Your task to perform on an android device: turn vacation reply on in the gmail app Image 0: 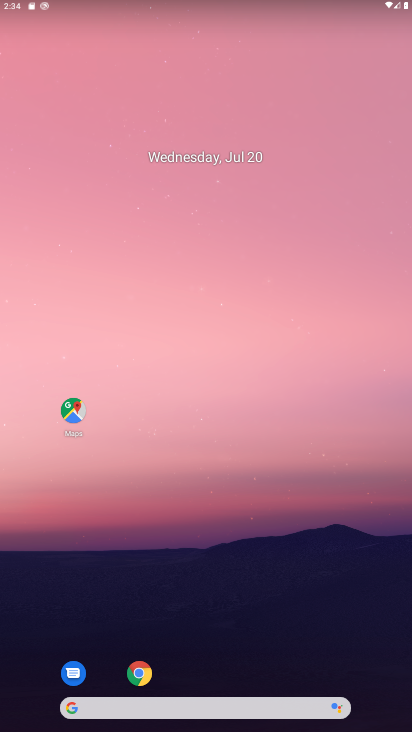
Step 0: drag from (201, 547) to (218, 262)
Your task to perform on an android device: turn vacation reply on in the gmail app Image 1: 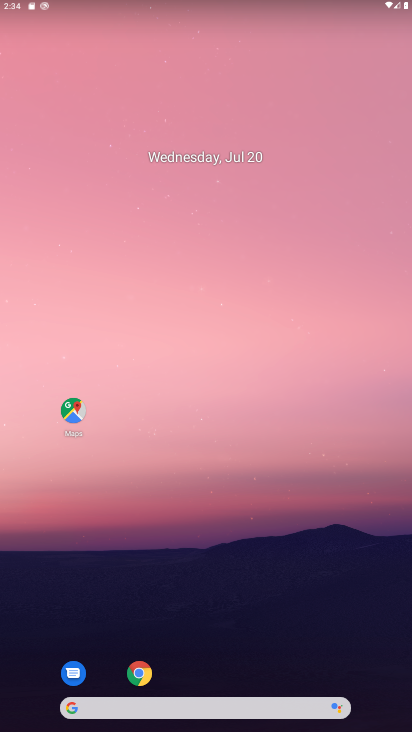
Step 1: drag from (214, 654) to (144, 30)
Your task to perform on an android device: turn vacation reply on in the gmail app Image 2: 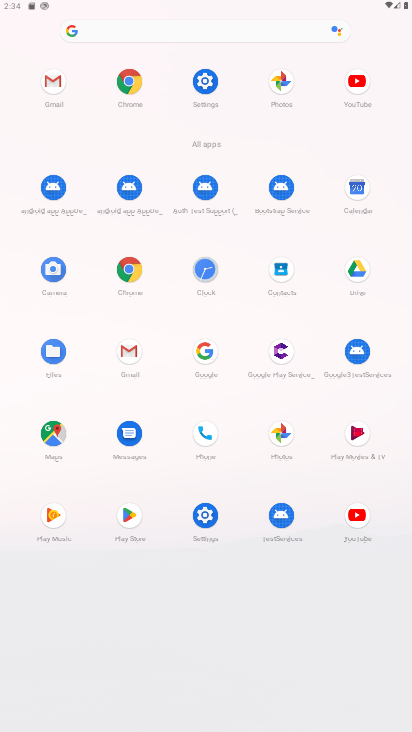
Step 2: click (138, 352)
Your task to perform on an android device: turn vacation reply on in the gmail app Image 3: 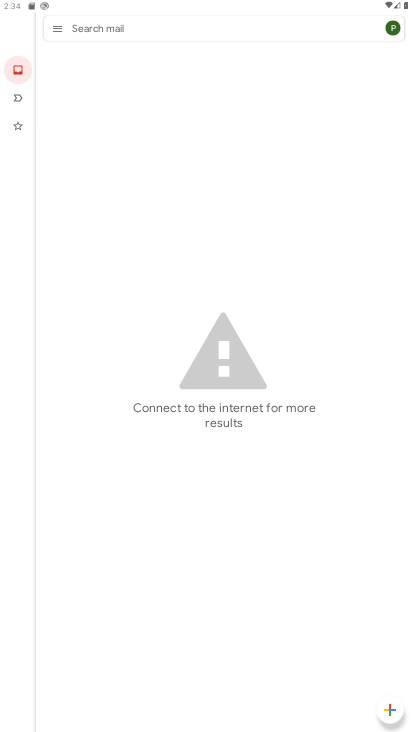
Step 3: click (53, 16)
Your task to perform on an android device: turn vacation reply on in the gmail app Image 4: 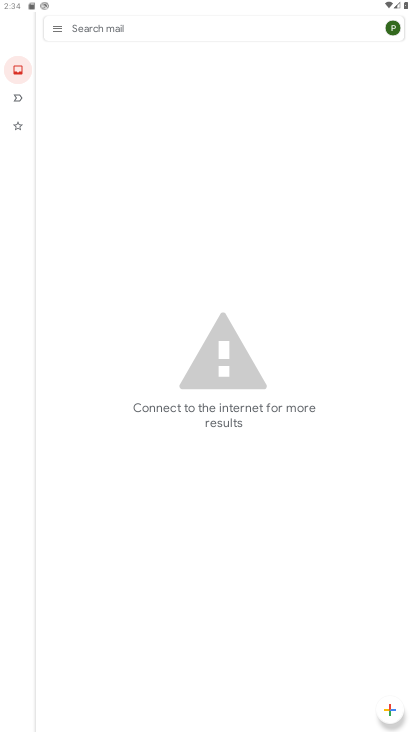
Step 4: click (52, 30)
Your task to perform on an android device: turn vacation reply on in the gmail app Image 5: 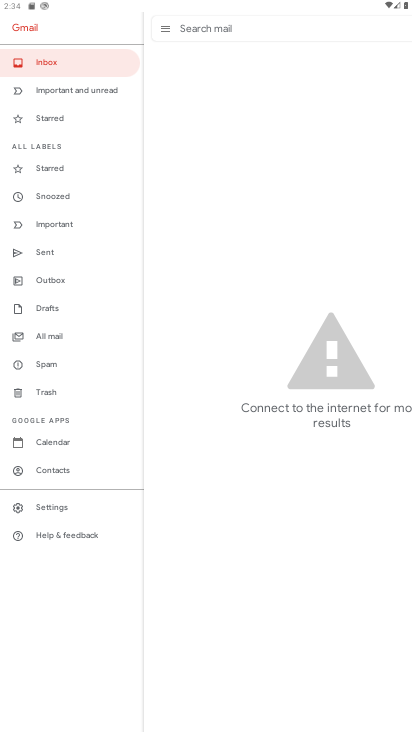
Step 5: click (47, 504)
Your task to perform on an android device: turn vacation reply on in the gmail app Image 6: 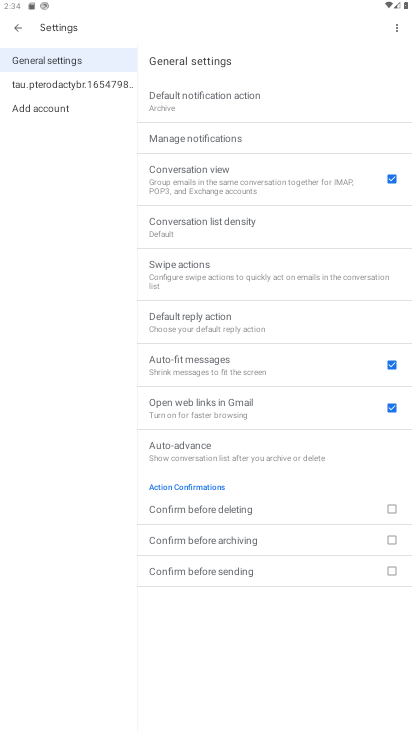
Step 6: click (88, 83)
Your task to perform on an android device: turn vacation reply on in the gmail app Image 7: 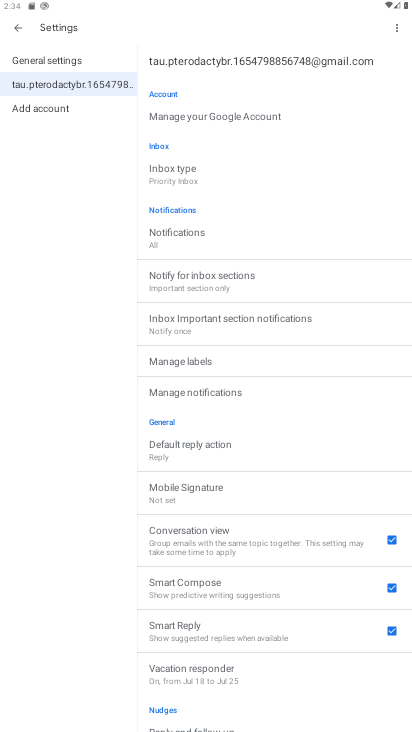
Step 7: drag from (236, 590) to (246, 407)
Your task to perform on an android device: turn vacation reply on in the gmail app Image 8: 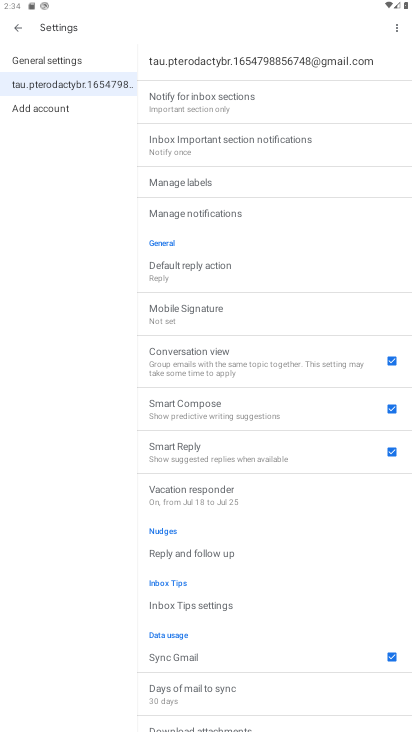
Step 8: click (220, 486)
Your task to perform on an android device: turn vacation reply on in the gmail app Image 9: 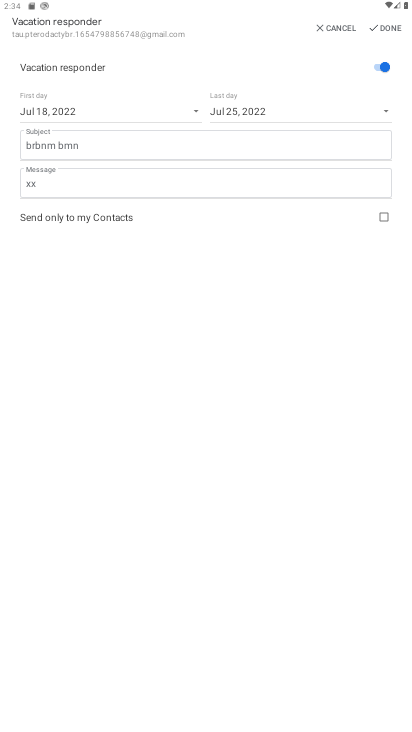
Step 9: task complete